Your task to perform on an android device: Open the stopwatch Image 0: 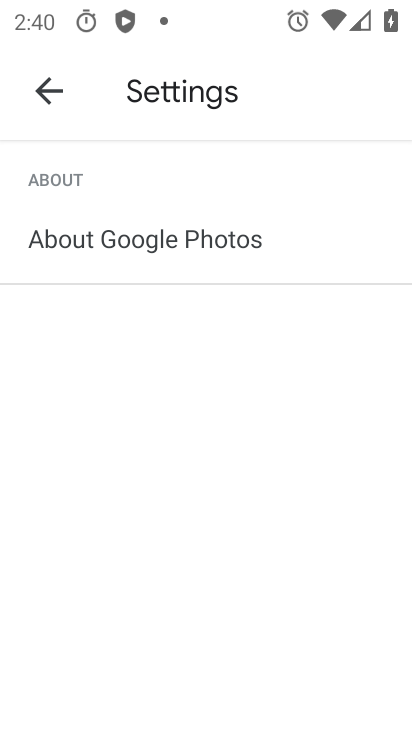
Step 0: click (46, 81)
Your task to perform on an android device: Open the stopwatch Image 1: 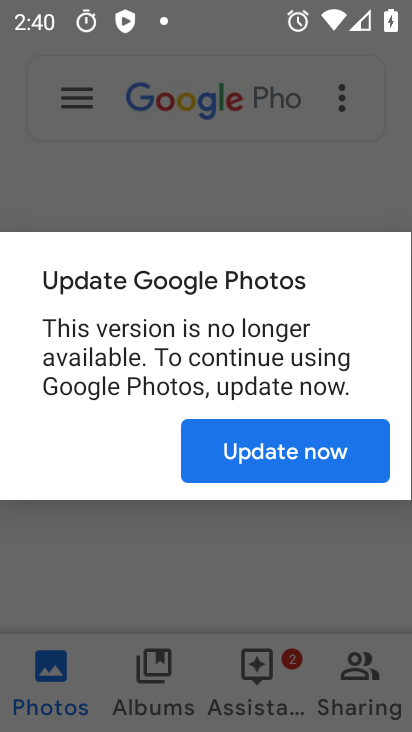
Step 1: press home button
Your task to perform on an android device: Open the stopwatch Image 2: 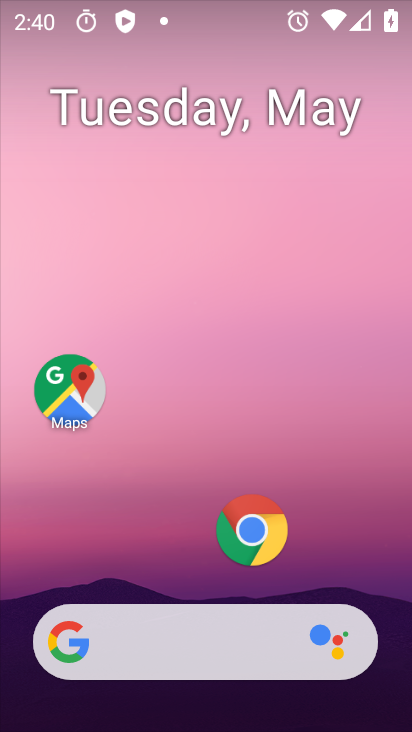
Step 2: drag from (203, 584) to (113, 22)
Your task to perform on an android device: Open the stopwatch Image 3: 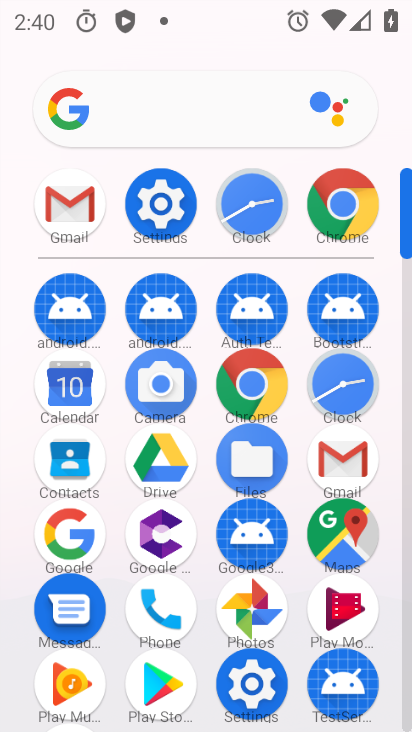
Step 3: click (340, 383)
Your task to perform on an android device: Open the stopwatch Image 4: 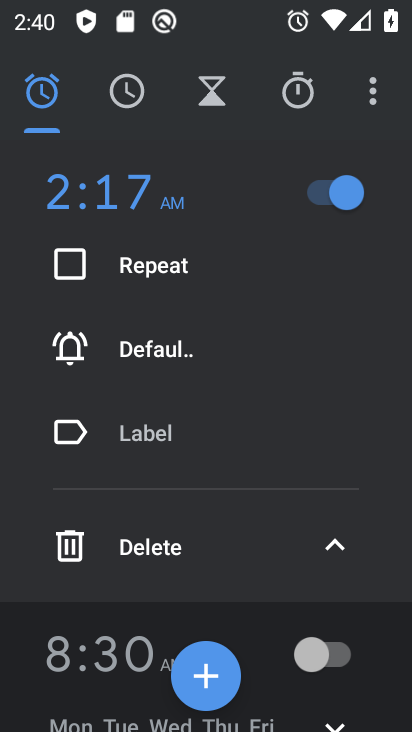
Step 4: click (291, 112)
Your task to perform on an android device: Open the stopwatch Image 5: 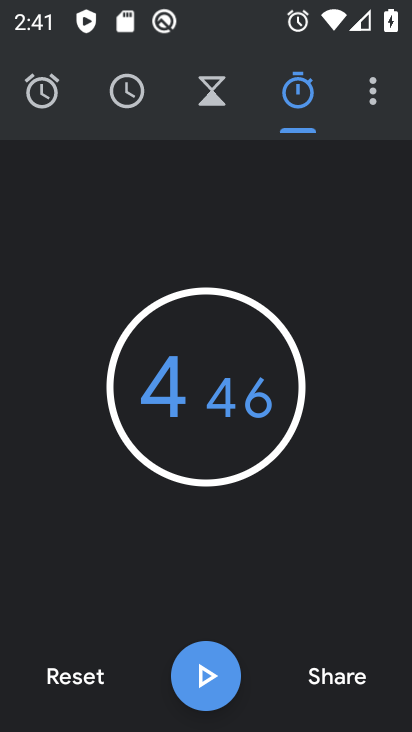
Step 5: task complete